Your task to perform on an android device: read, delete, or share a saved page in the chrome app Image 0: 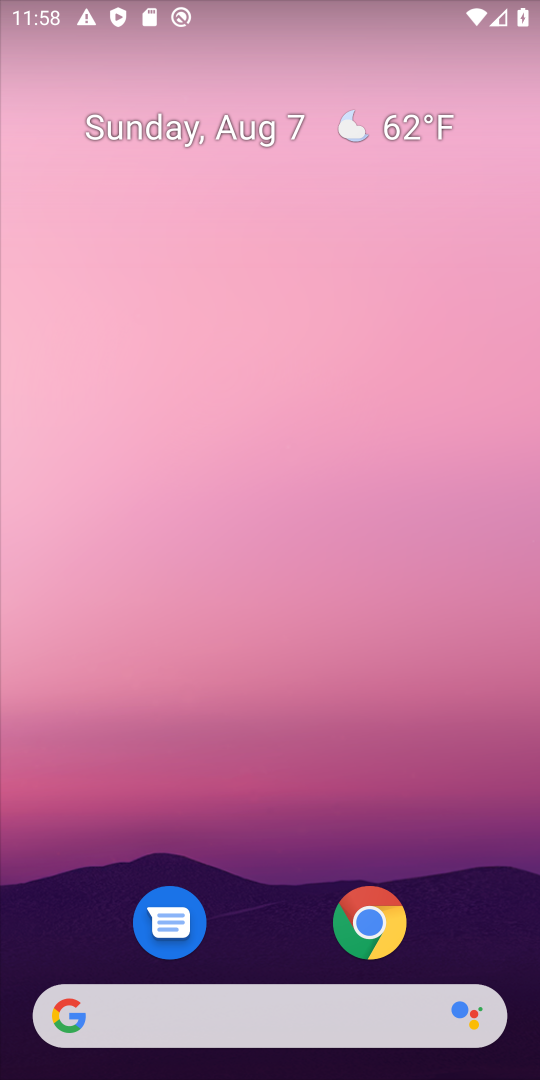
Step 0: click (371, 924)
Your task to perform on an android device: read, delete, or share a saved page in the chrome app Image 1: 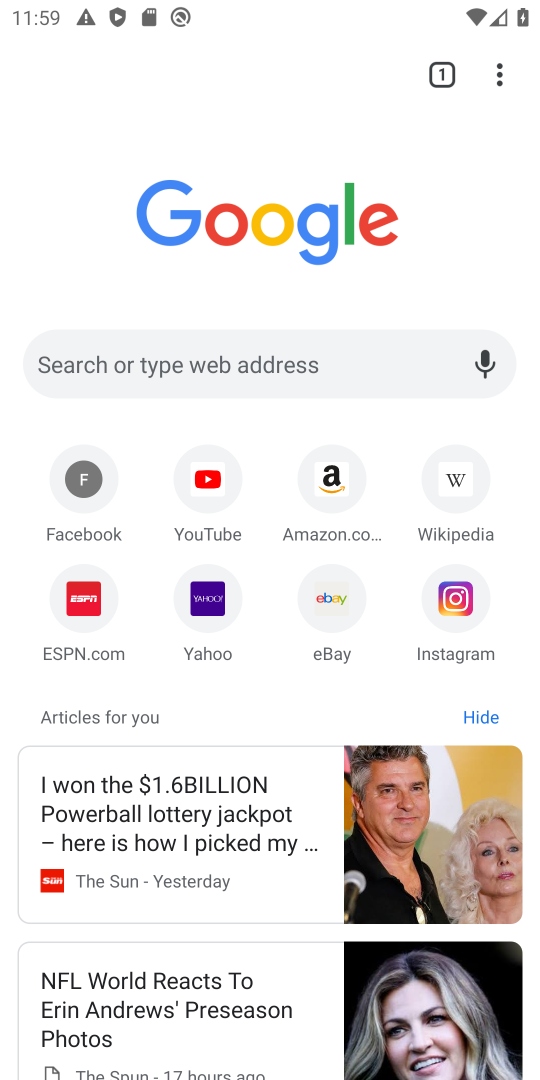
Step 1: click (506, 75)
Your task to perform on an android device: read, delete, or share a saved page in the chrome app Image 2: 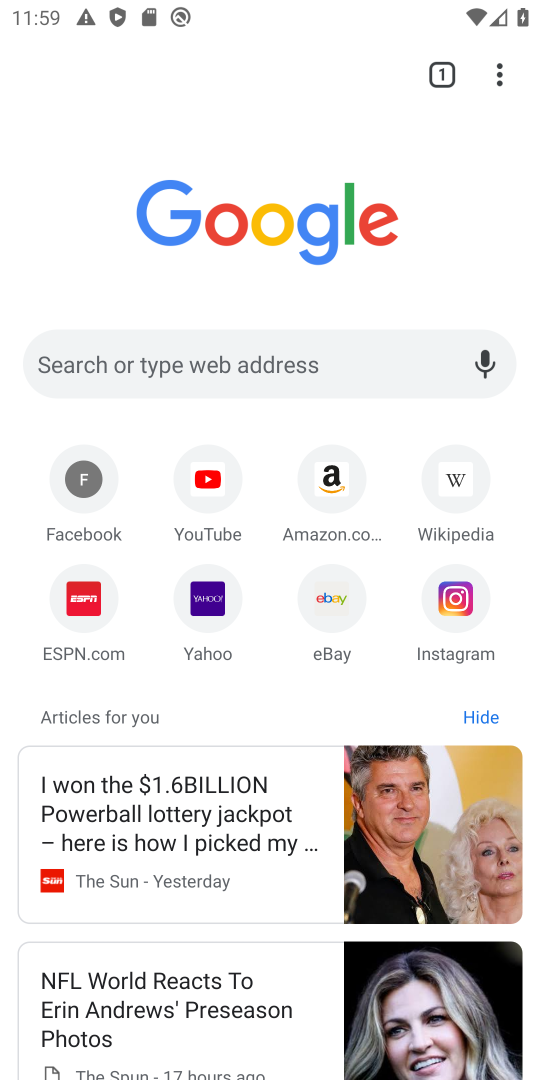
Step 2: click (499, 86)
Your task to perform on an android device: read, delete, or share a saved page in the chrome app Image 3: 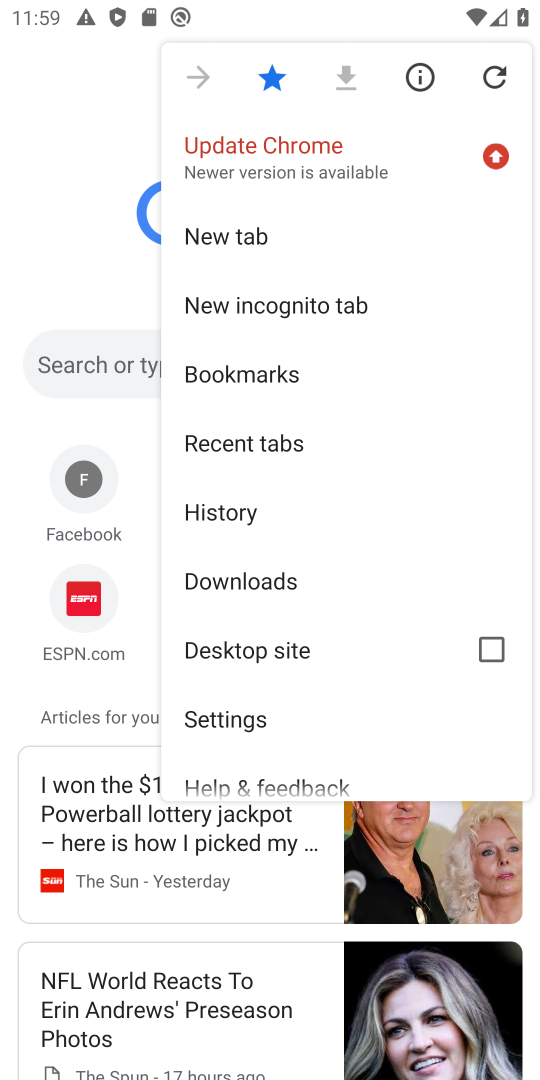
Step 3: click (247, 575)
Your task to perform on an android device: read, delete, or share a saved page in the chrome app Image 4: 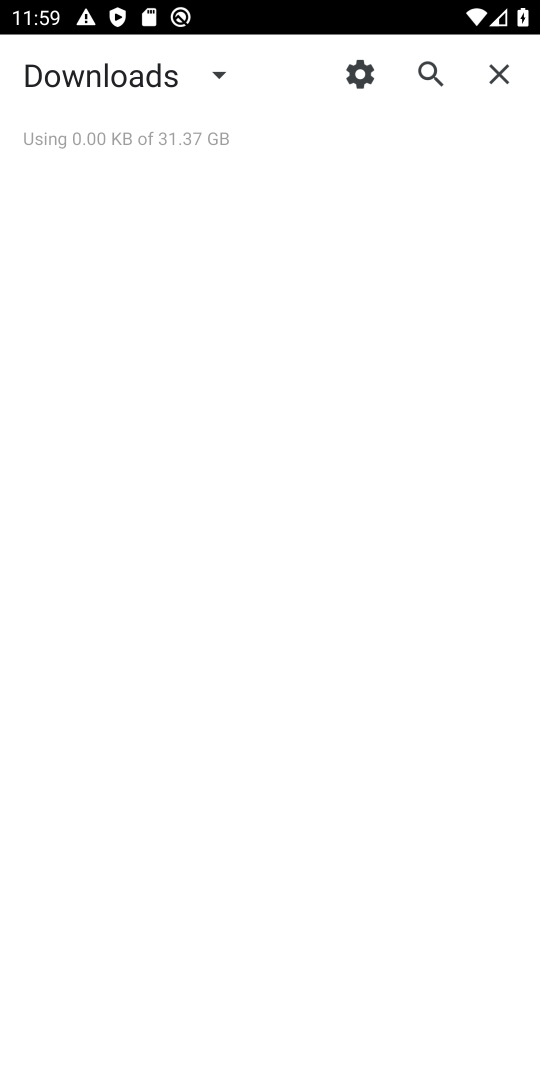
Step 4: task complete